Your task to perform on an android device: Open the map Image 0: 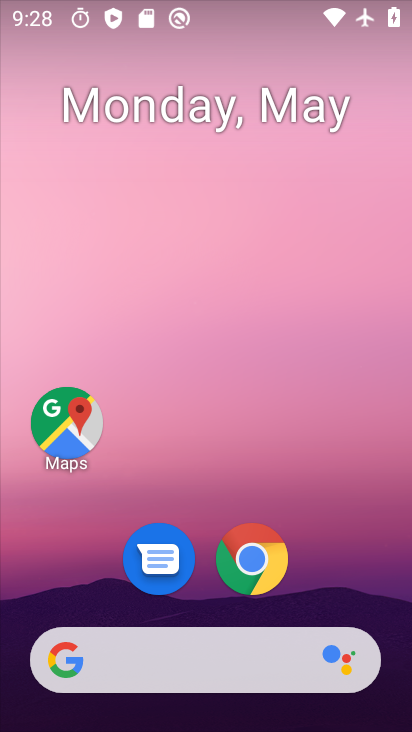
Step 0: drag from (345, 569) to (250, 148)
Your task to perform on an android device: Open the map Image 1: 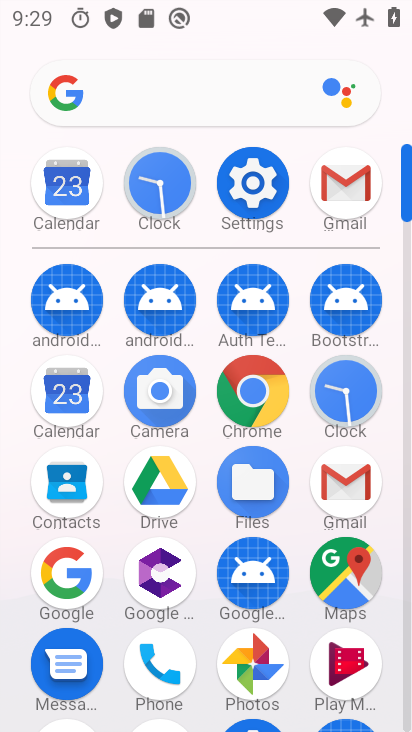
Step 1: click (349, 571)
Your task to perform on an android device: Open the map Image 2: 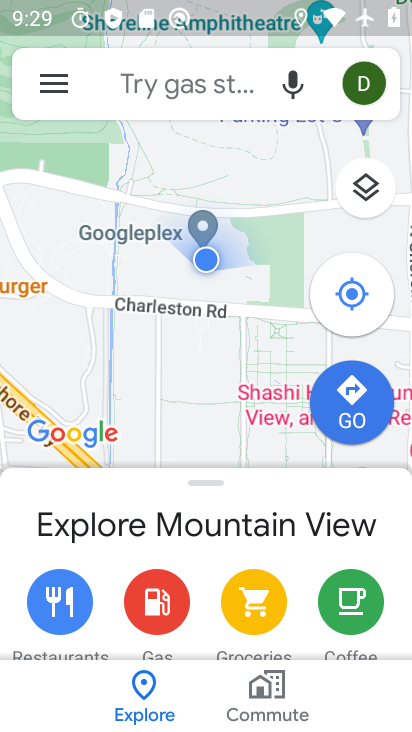
Step 2: task complete